Your task to perform on an android device: set the stopwatch Image 0: 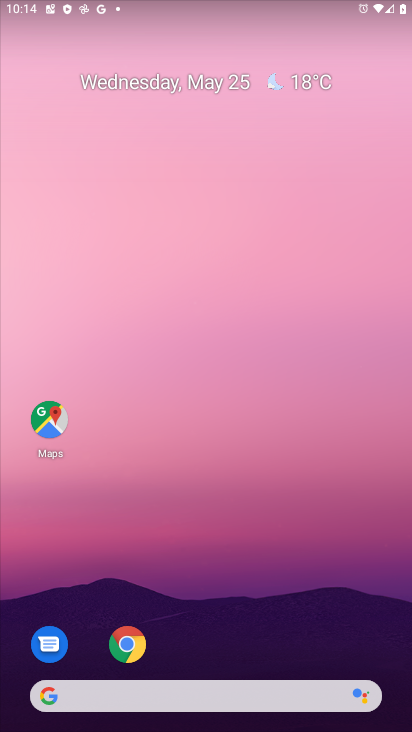
Step 0: press home button
Your task to perform on an android device: set the stopwatch Image 1: 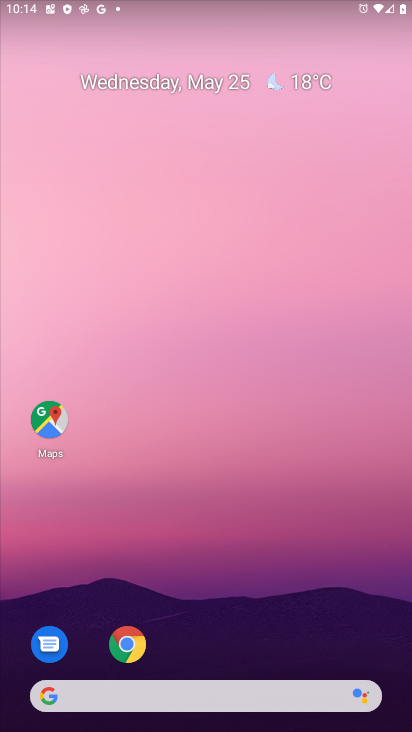
Step 1: drag from (213, 660) to (232, 12)
Your task to perform on an android device: set the stopwatch Image 2: 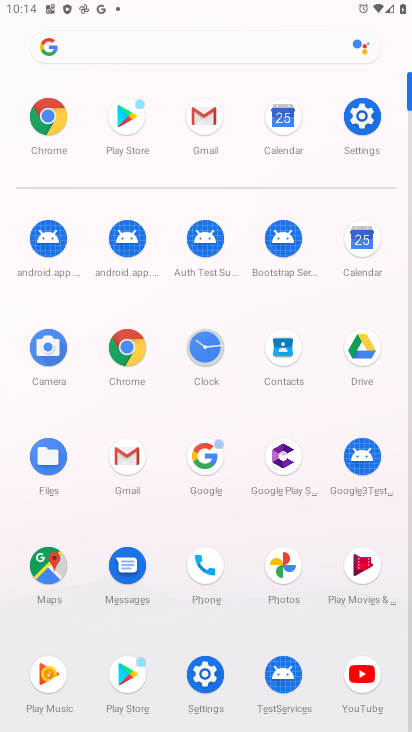
Step 2: click (204, 339)
Your task to perform on an android device: set the stopwatch Image 3: 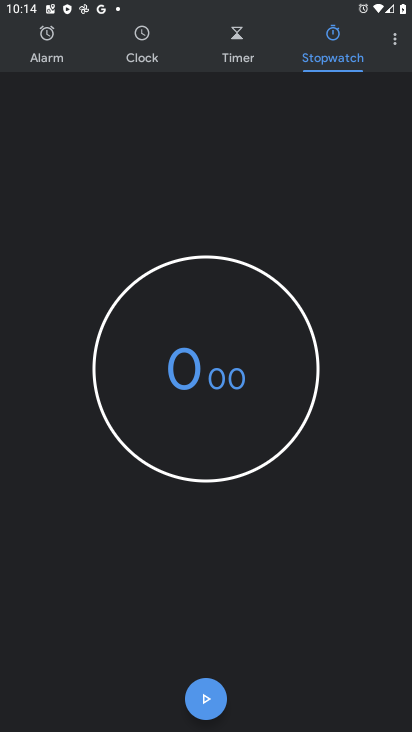
Step 3: click (203, 691)
Your task to perform on an android device: set the stopwatch Image 4: 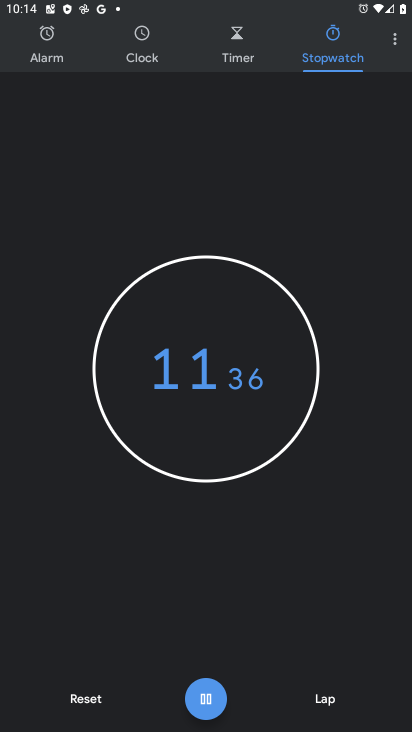
Step 4: click (81, 694)
Your task to perform on an android device: set the stopwatch Image 5: 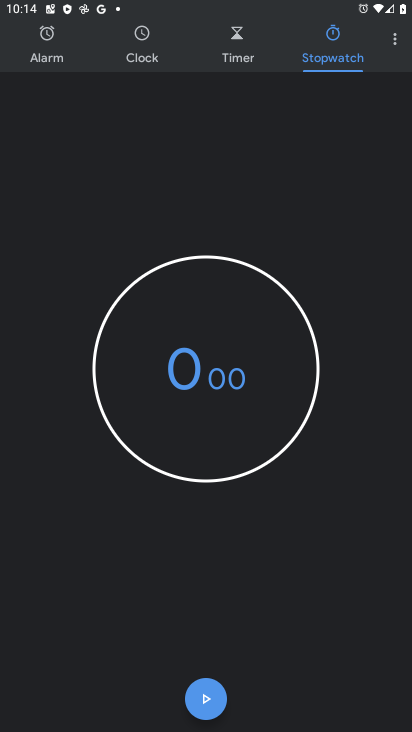
Step 5: task complete